Your task to perform on an android device: Open Youtube and go to the subscriptions tab Image 0: 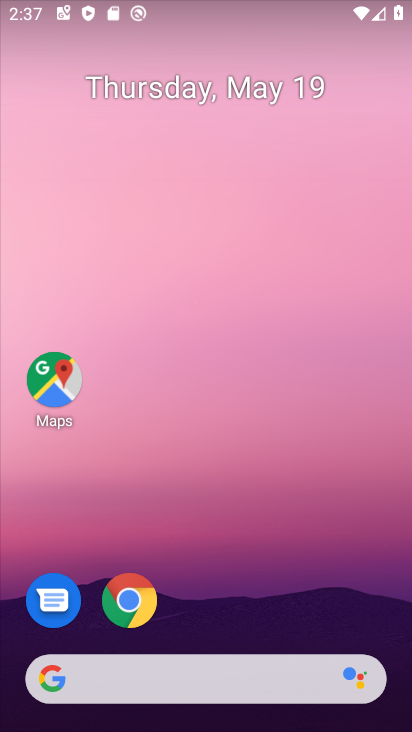
Step 0: drag from (401, 679) to (392, 219)
Your task to perform on an android device: Open Youtube and go to the subscriptions tab Image 1: 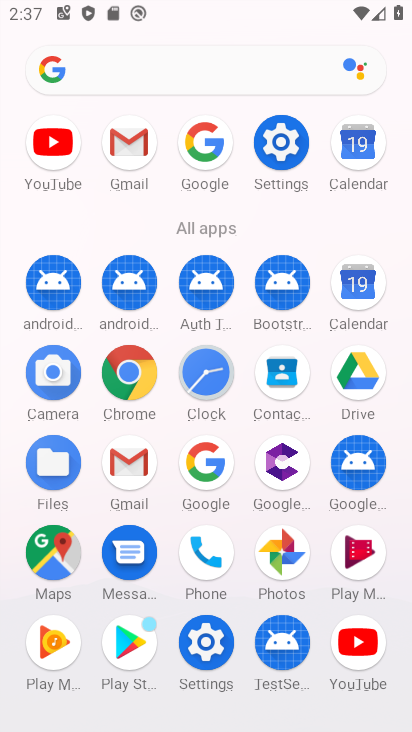
Step 1: click (360, 653)
Your task to perform on an android device: Open Youtube and go to the subscriptions tab Image 2: 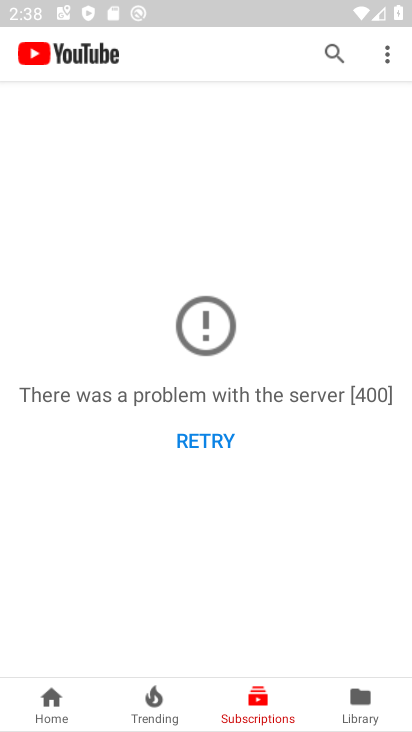
Step 2: press home button
Your task to perform on an android device: Open Youtube and go to the subscriptions tab Image 3: 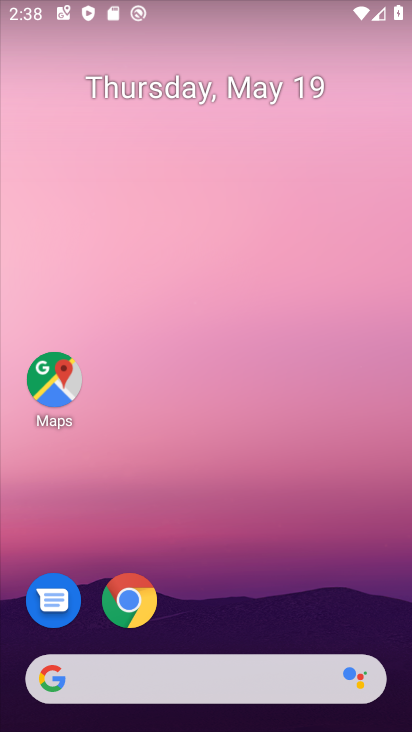
Step 3: drag from (400, 692) to (337, 187)
Your task to perform on an android device: Open Youtube and go to the subscriptions tab Image 4: 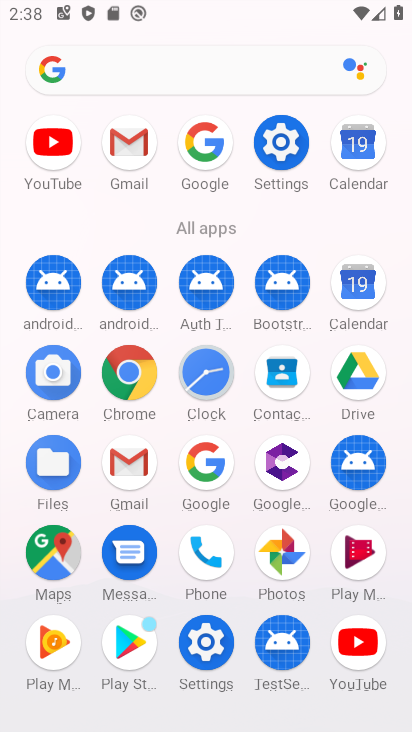
Step 4: click (347, 648)
Your task to perform on an android device: Open Youtube and go to the subscriptions tab Image 5: 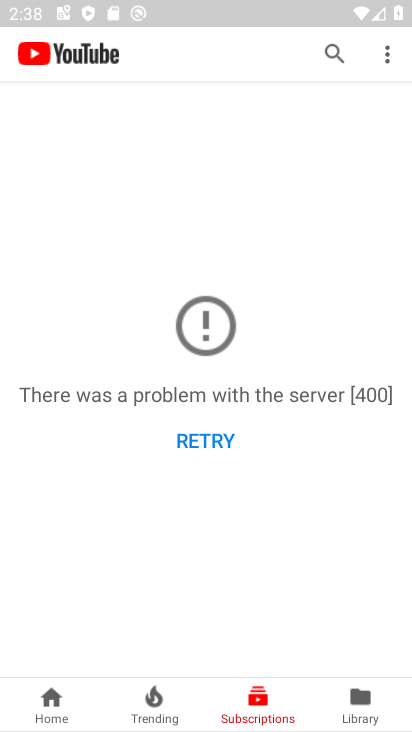
Step 5: click (254, 707)
Your task to perform on an android device: Open Youtube and go to the subscriptions tab Image 6: 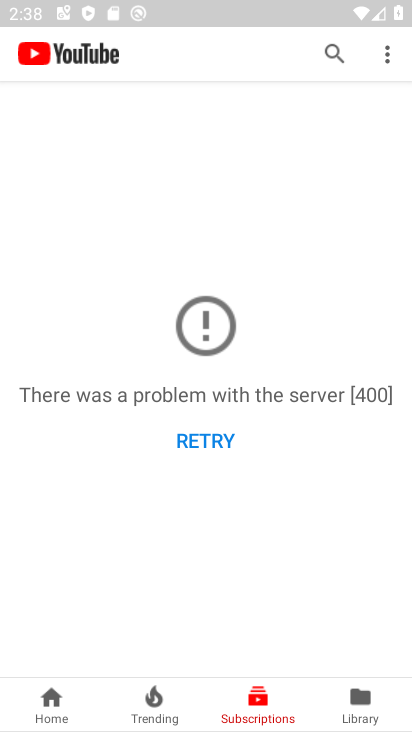
Step 6: task complete